Your task to perform on an android device: Open the map Image 0: 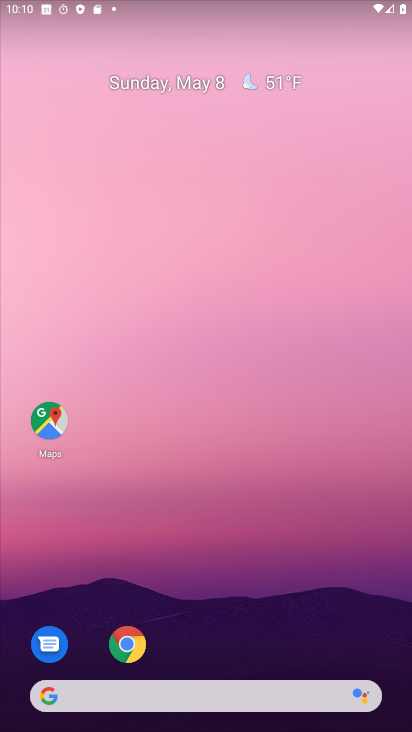
Step 0: drag from (219, 649) to (294, 93)
Your task to perform on an android device: Open the map Image 1: 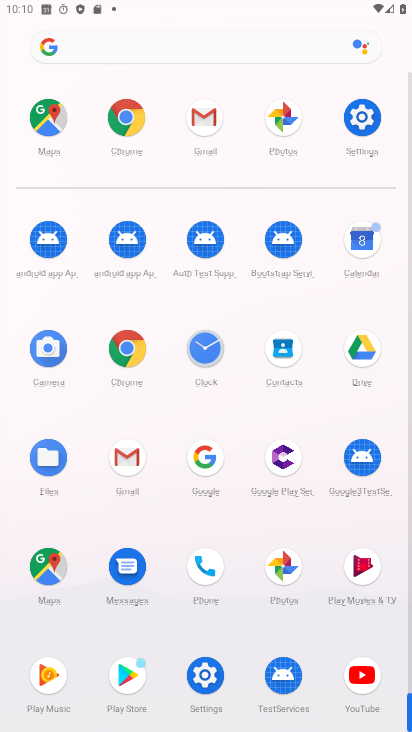
Step 1: click (42, 569)
Your task to perform on an android device: Open the map Image 2: 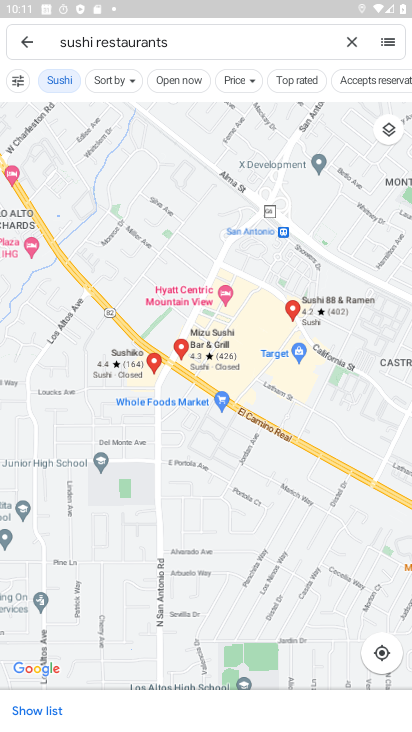
Step 2: task complete